Your task to perform on an android device: Turn on the flashlight Image 0: 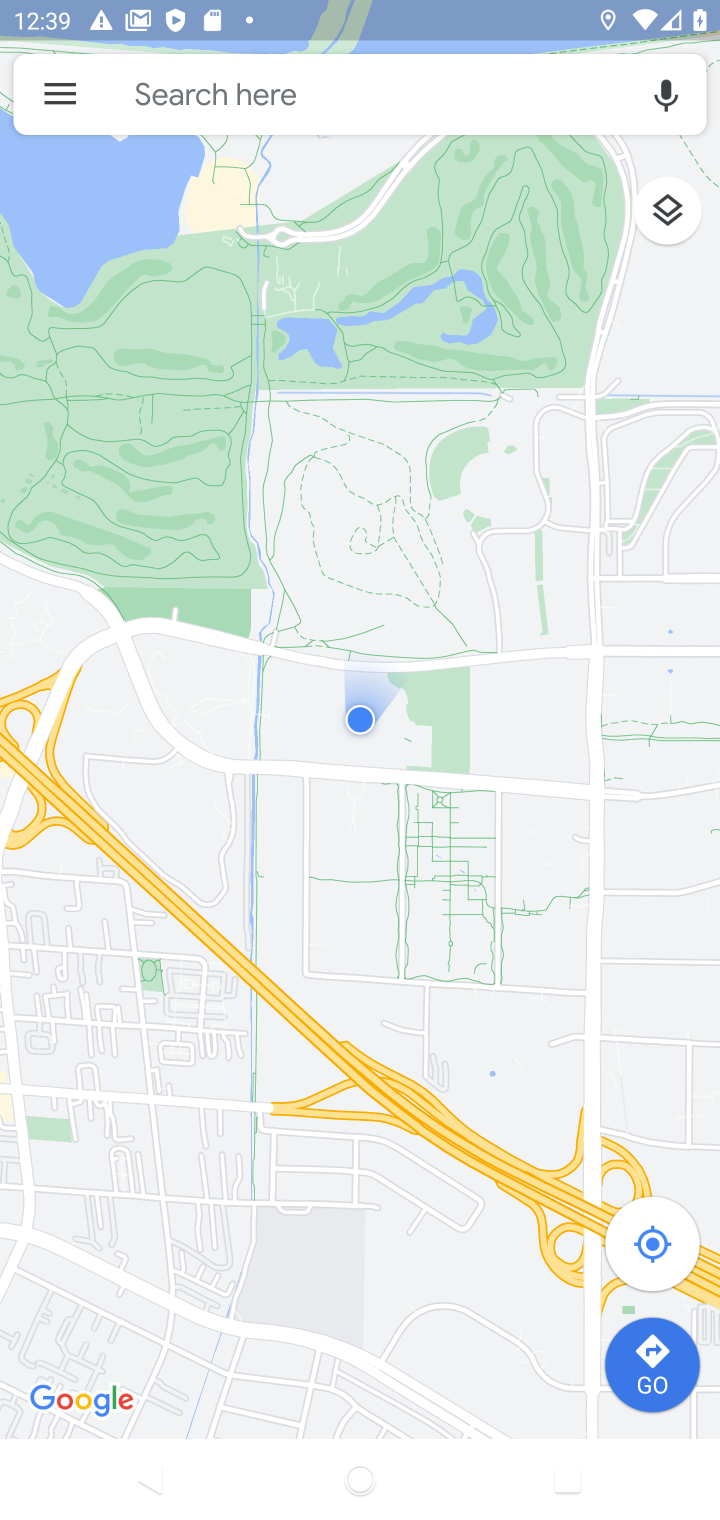
Step 0: drag from (491, 1) to (420, 933)
Your task to perform on an android device: Turn on the flashlight Image 1: 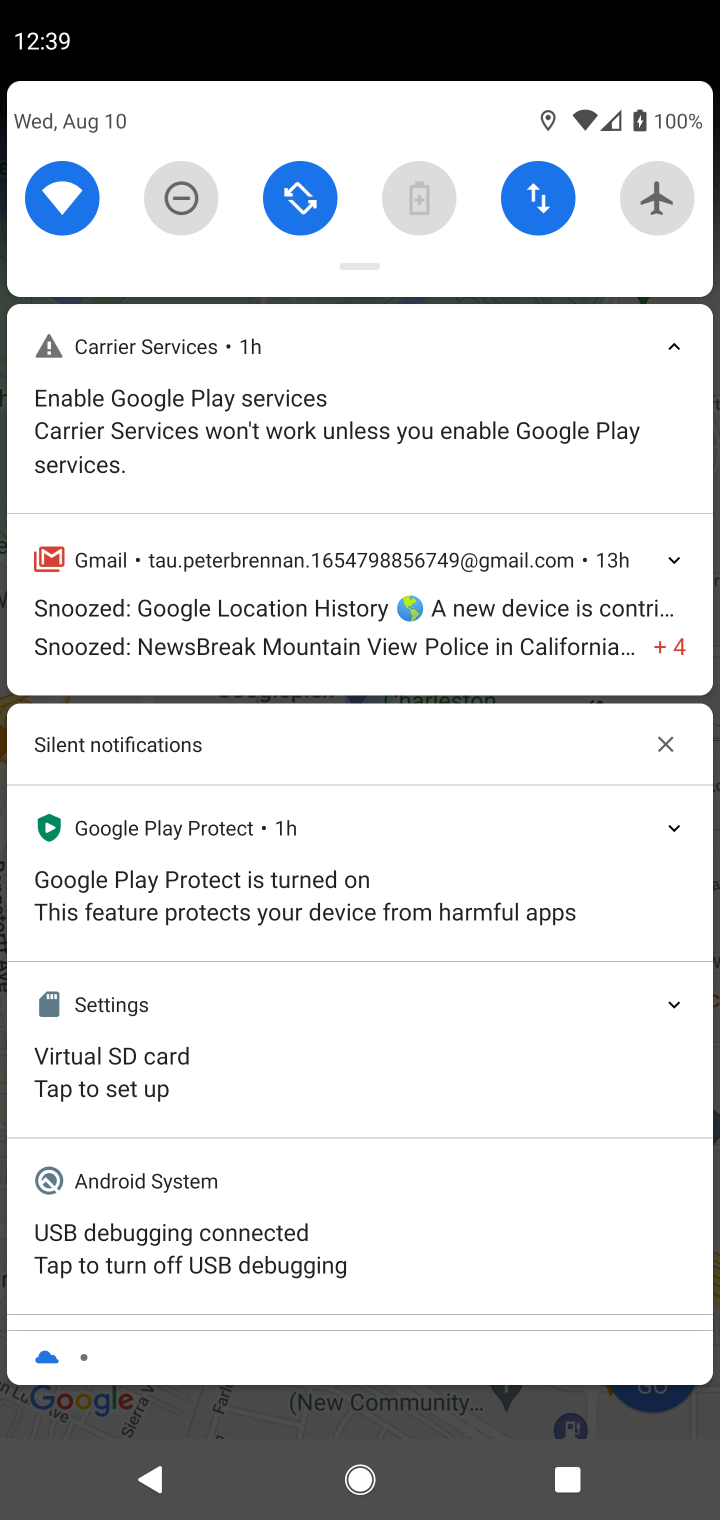
Step 1: task complete